Your task to perform on an android device: Open Reddit.com Image 0: 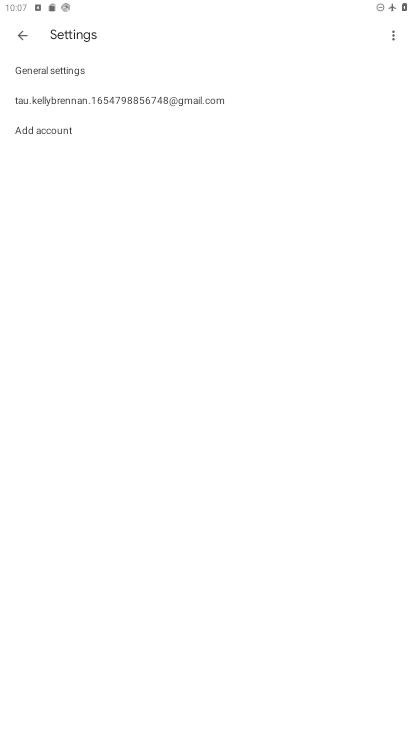
Step 0: press home button
Your task to perform on an android device: Open Reddit.com Image 1: 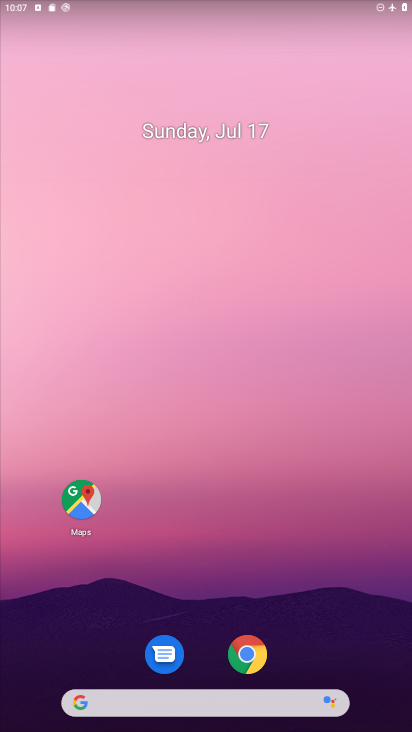
Step 1: click (251, 638)
Your task to perform on an android device: Open Reddit.com Image 2: 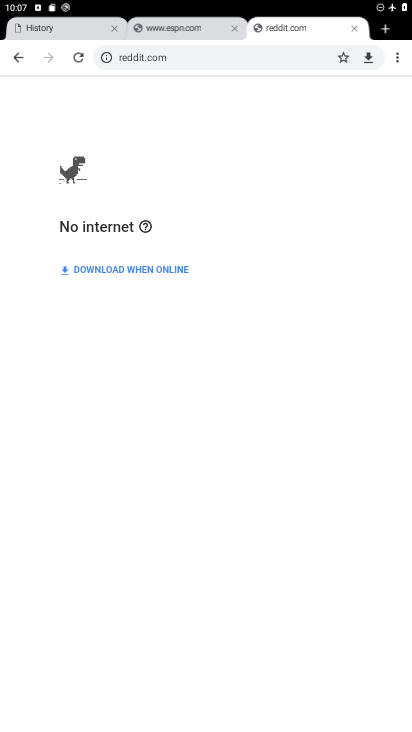
Step 2: task complete